Your task to perform on an android device: What's on my calendar tomorrow? Image 0: 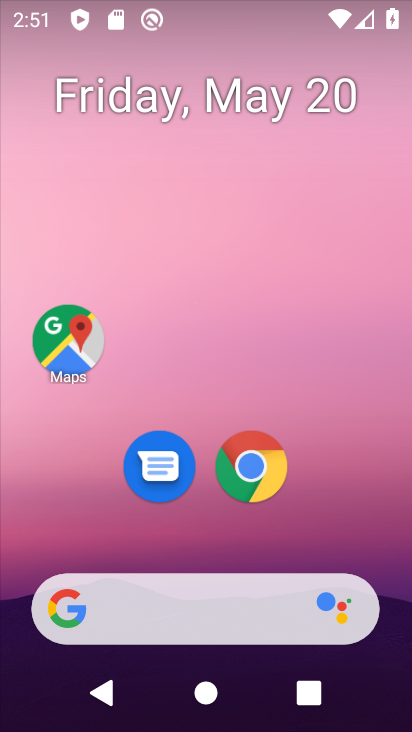
Step 0: click (172, 177)
Your task to perform on an android device: What's on my calendar tomorrow? Image 1: 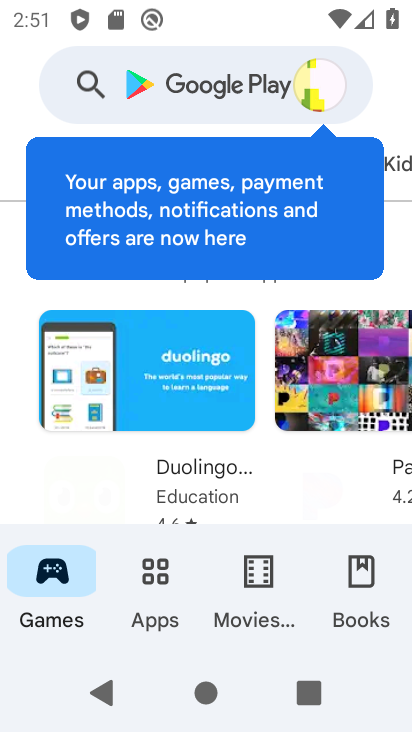
Step 1: press home button
Your task to perform on an android device: What's on my calendar tomorrow? Image 2: 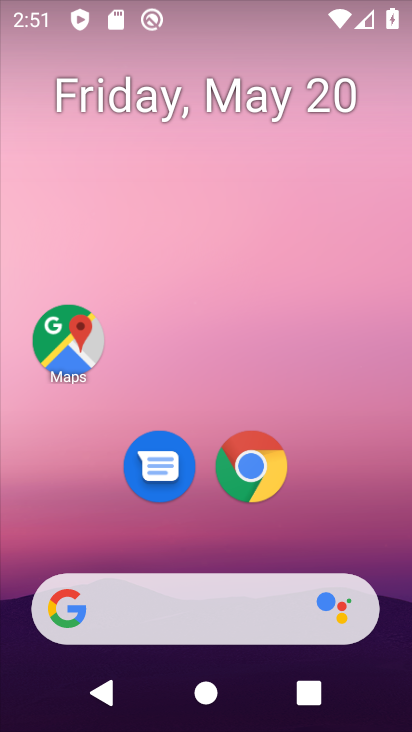
Step 2: drag from (171, 470) to (205, 286)
Your task to perform on an android device: What's on my calendar tomorrow? Image 3: 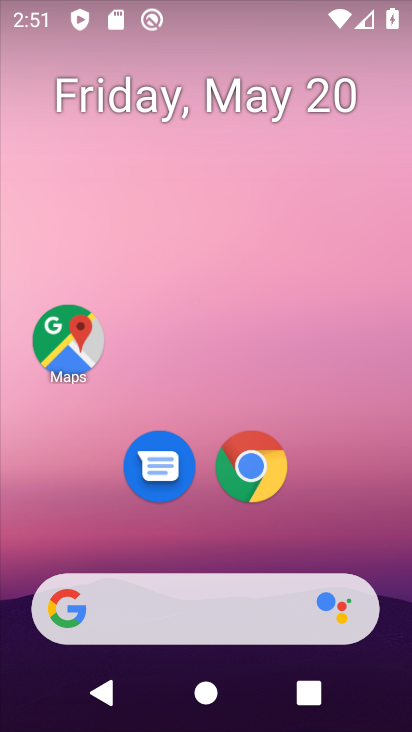
Step 3: drag from (201, 562) to (230, 194)
Your task to perform on an android device: What's on my calendar tomorrow? Image 4: 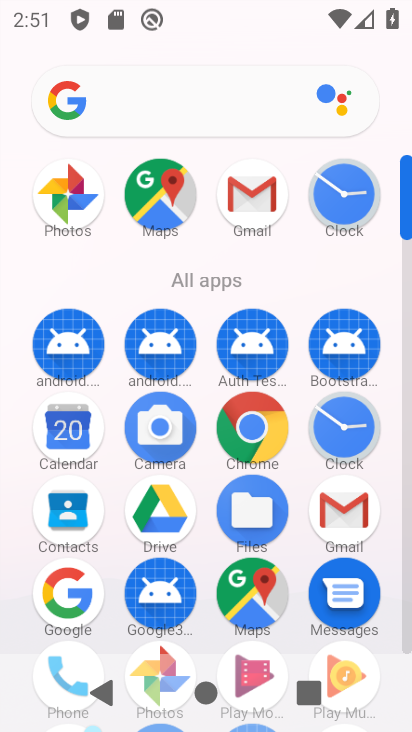
Step 4: click (77, 411)
Your task to perform on an android device: What's on my calendar tomorrow? Image 5: 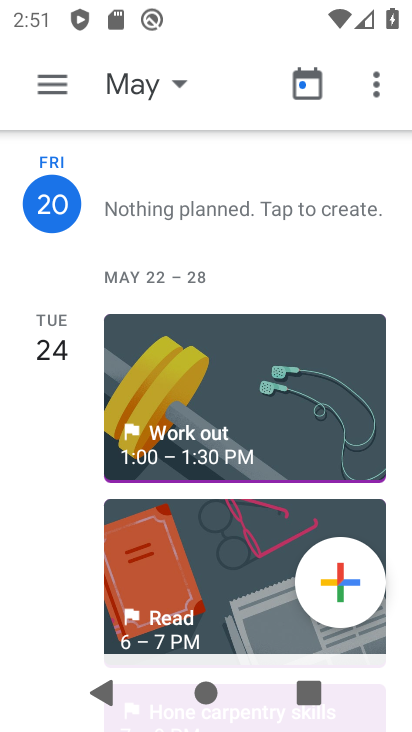
Step 5: click (175, 213)
Your task to perform on an android device: What's on my calendar tomorrow? Image 6: 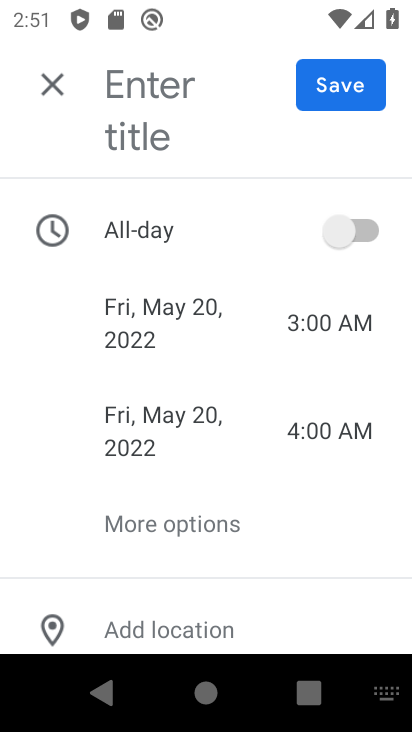
Step 6: task complete